Your task to perform on an android device: Open Chrome and go to settings Image 0: 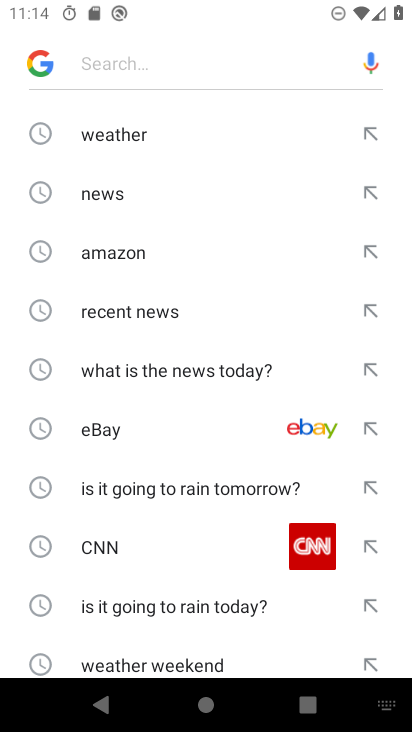
Step 0: press home button
Your task to perform on an android device: Open Chrome and go to settings Image 1: 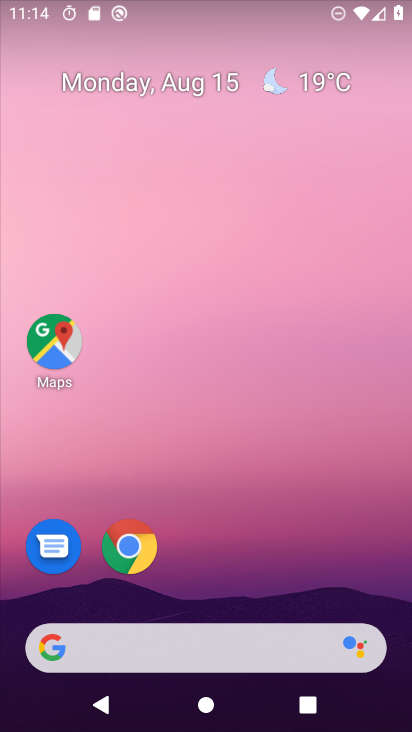
Step 1: click (122, 546)
Your task to perform on an android device: Open Chrome and go to settings Image 2: 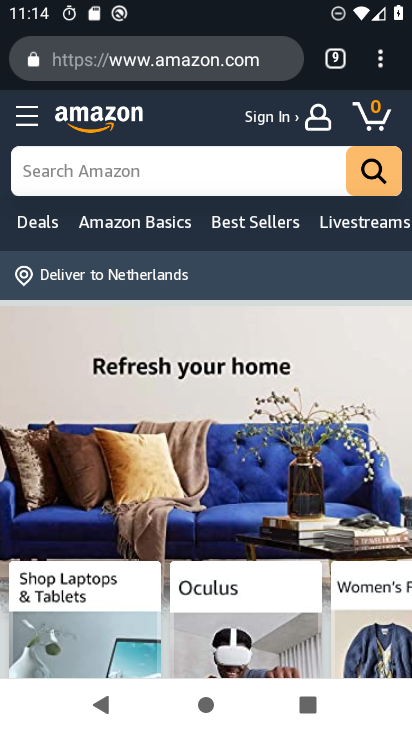
Step 2: click (382, 66)
Your task to perform on an android device: Open Chrome and go to settings Image 3: 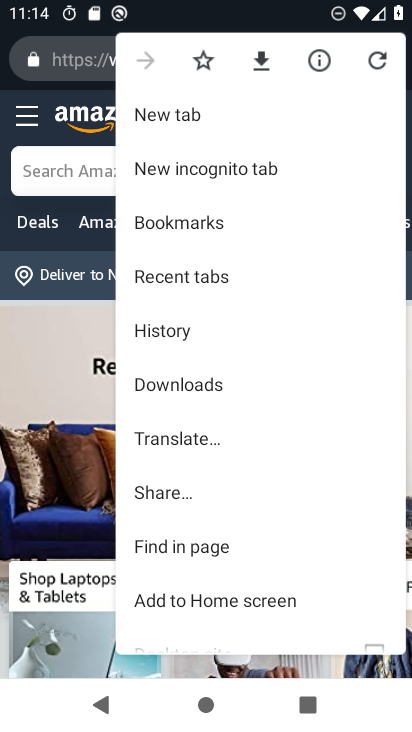
Step 3: drag from (189, 575) to (187, 286)
Your task to perform on an android device: Open Chrome and go to settings Image 4: 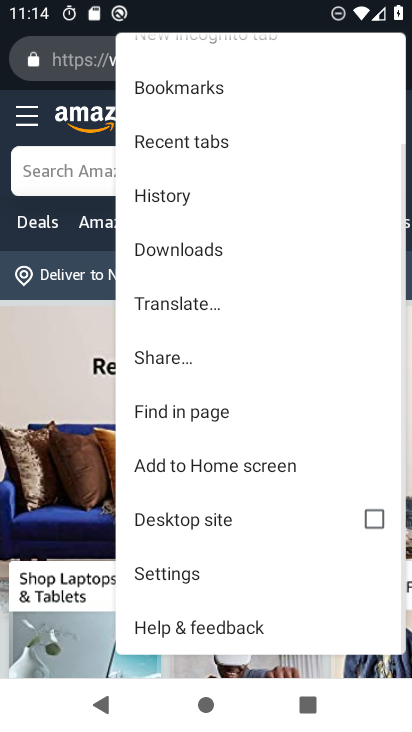
Step 4: click (176, 562)
Your task to perform on an android device: Open Chrome and go to settings Image 5: 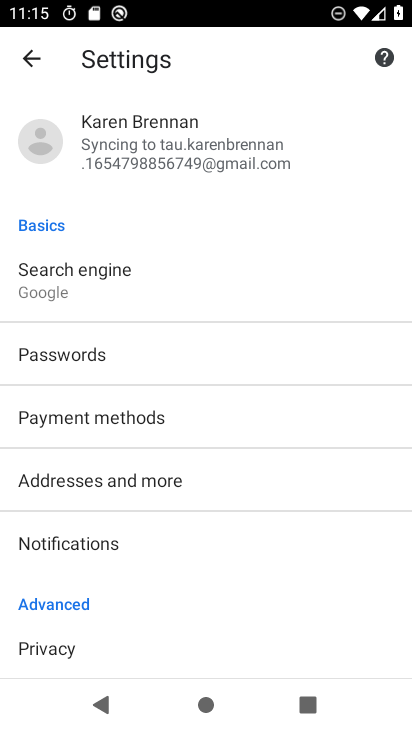
Step 5: task complete